Your task to perform on an android device: allow cookies in the chrome app Image 0: 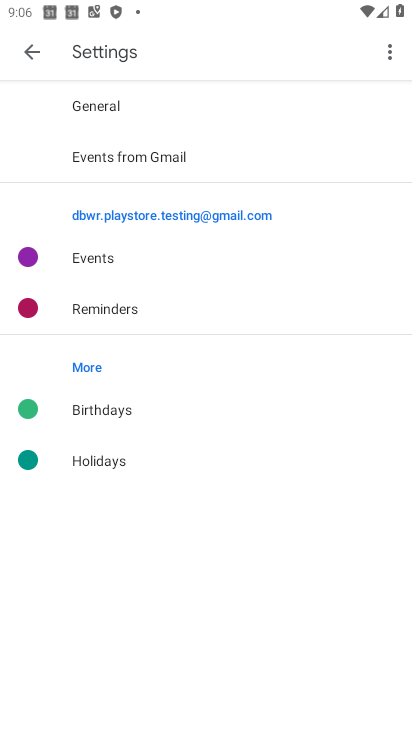
Step 0: press home button
Your task to perform on an android device: allow cookies in the chrome app Image 1: 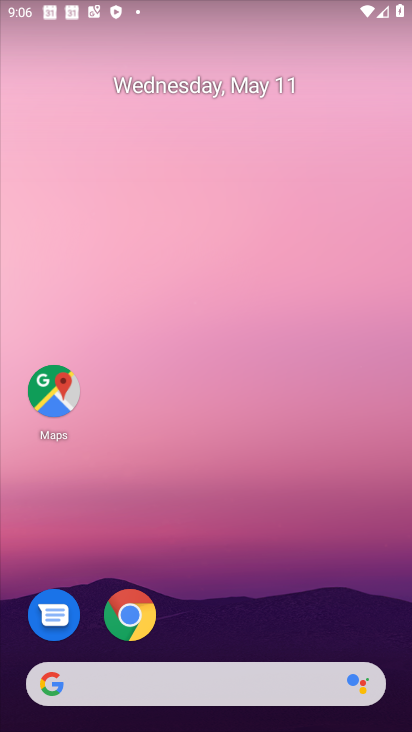
Step 1: click (129, 612)
Your task to perform on an android device: allow cookies in the chrome app Image 2: 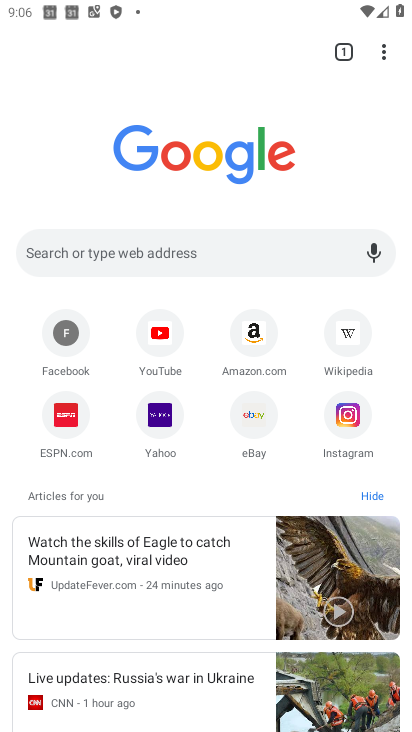
Step 2: click (386, 50)
Your task to perform on an android device: allow cookies in the chrome app Image 3: 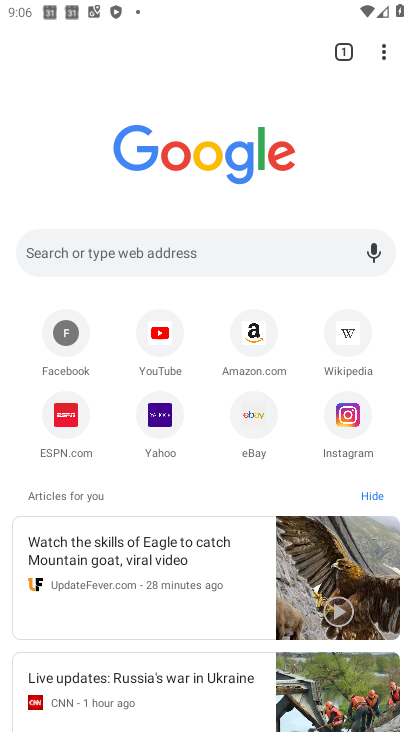
Step 3: click (370, 60)
Your task to perform on an android device: allow cookies in the chrome app Image 4: 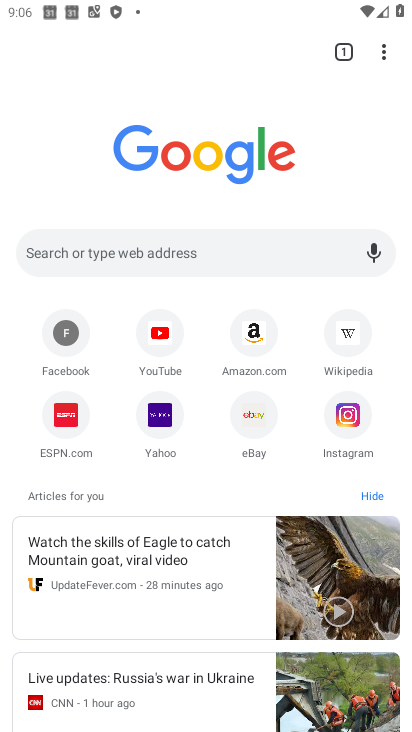
Step 4: click (379, 51)
Your task to perform on an android device: allow cookies in the chrome app Image 5: 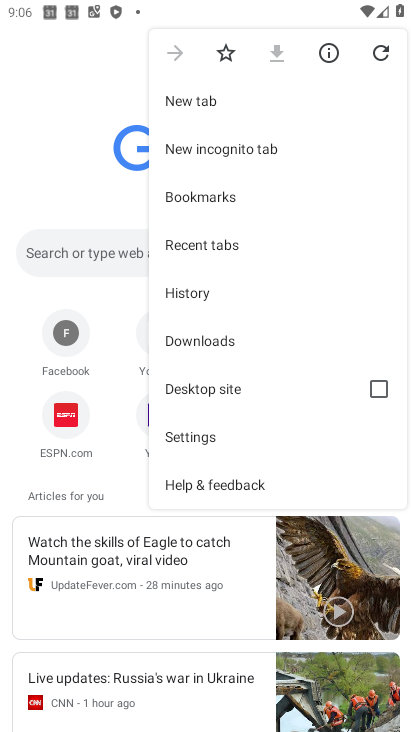
Step 5: click (214, 435)
Your task to perform on an android device: allow cookies in the chrome app Image 6: 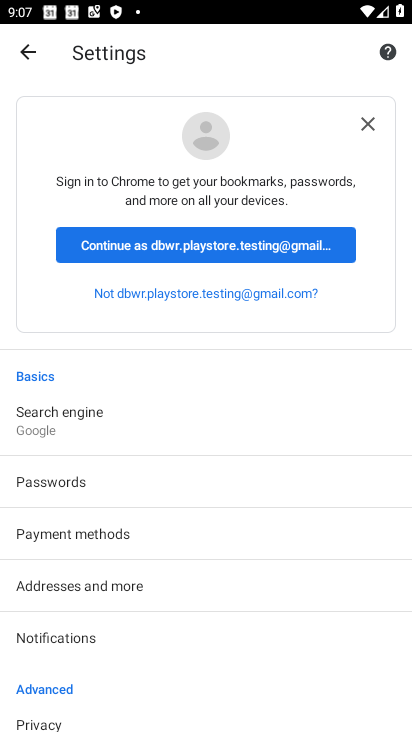
Step 6: click (283, 161)
Your task to perform on an android device: allow cookies in the chrome app Image 7: 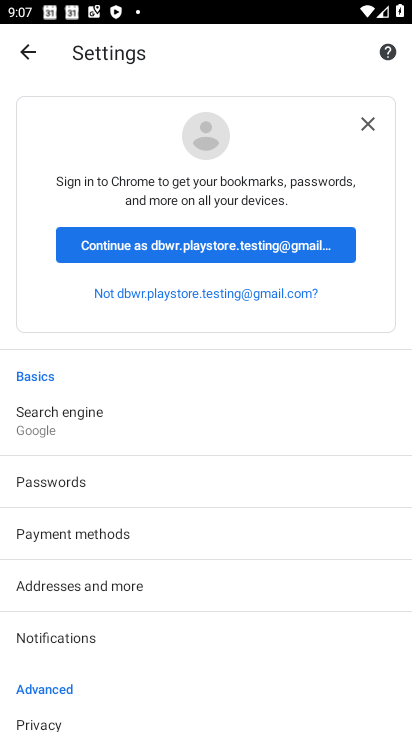
Step 7: click (259, 342)
Your task to perform on an android device: allow cookies in the chrome app Image 8: 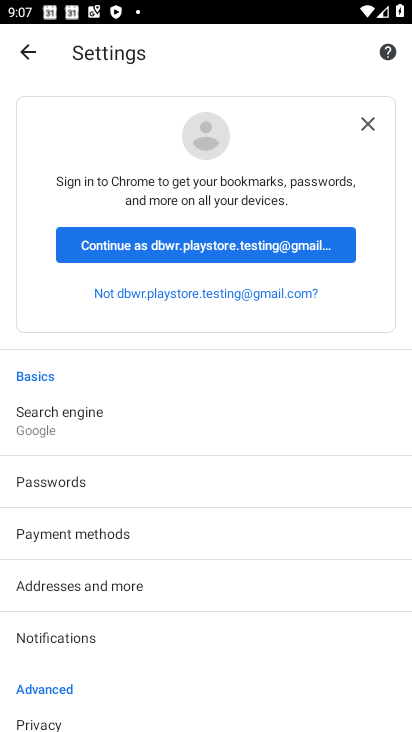
Step 8: drag from (24, 672) to (284, 304)
Your task to perform on an android device: allow cookies in the chrome app Image 9: 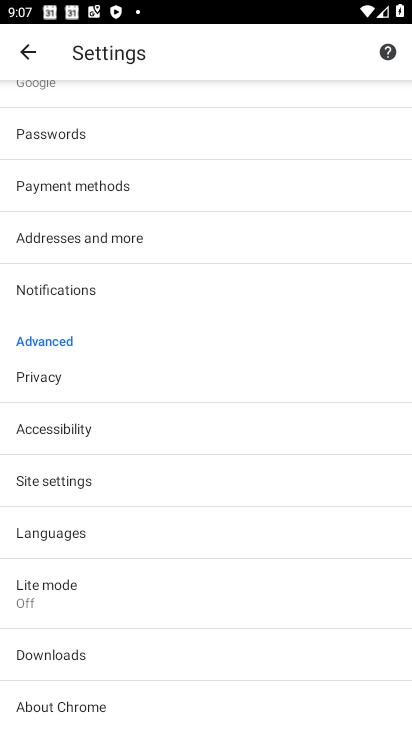
Step 9: click (108, 482)
Your task to perform on an android device: allow cookies in the chrome app Image 10: 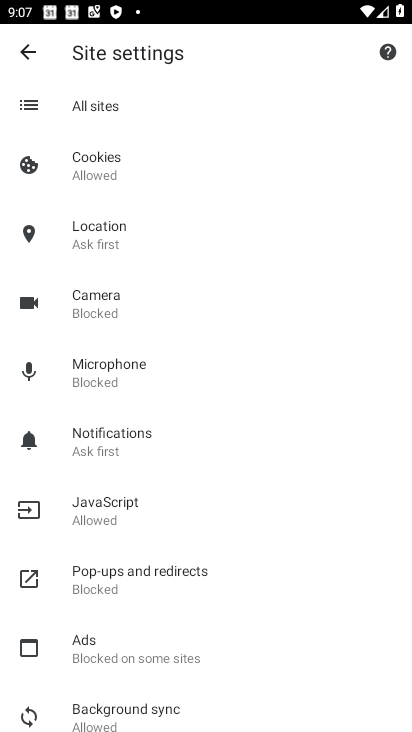
Step 10: click (118, 179)
Your task to perform on an android device: allow cookies in the chrome app Image 11: 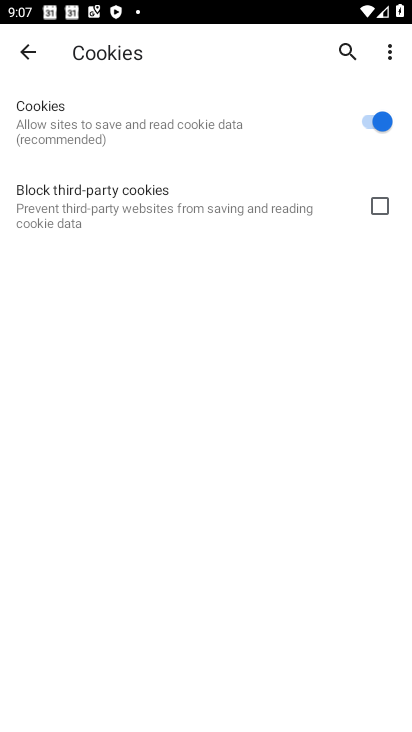
Step 11: task complete